Your task to perform on an android device: open app "Reddit" (install if not already installed) and go to login screen Image 0: 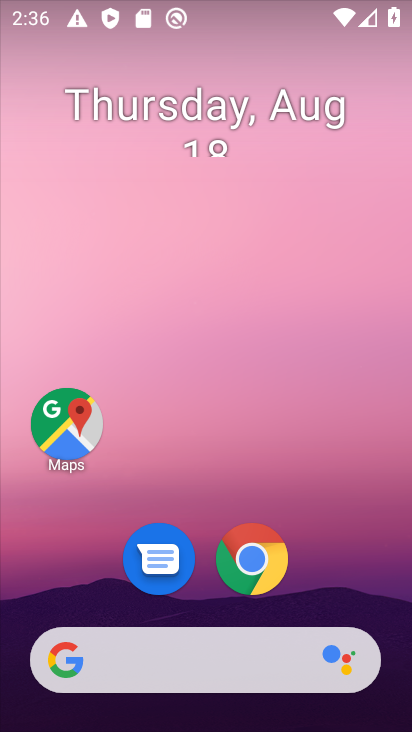
Step 0: drag from (339, 578) to (251, 0)
Your task to perform on an android device: open app "Reddit" (install if not already installed) and go to login screen Image 1: 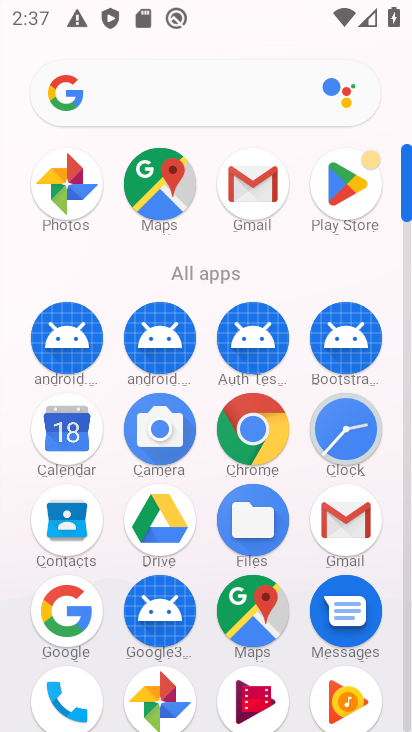
Step 1: click (328, 186)
Your task to perform on an android device: open app "Reddit" (install if not already installed) and go to login screen Image 2: 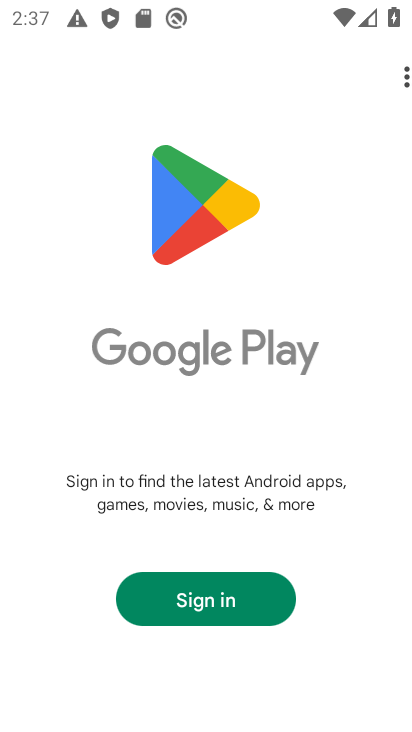
Step 2: click (187, 604)
Your task to perform on an android device: open app "Reddit" (install if not already installed) and go to login screen Image 3: 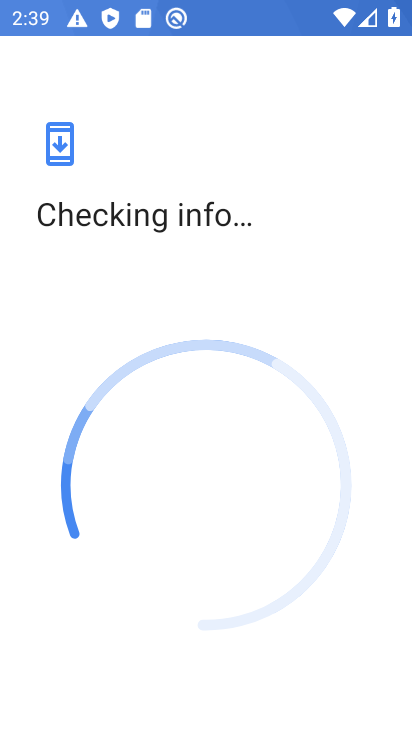
Step 3: task complete